Your task to perform on an android device: manage bookmarks in the chrome app Image 0: 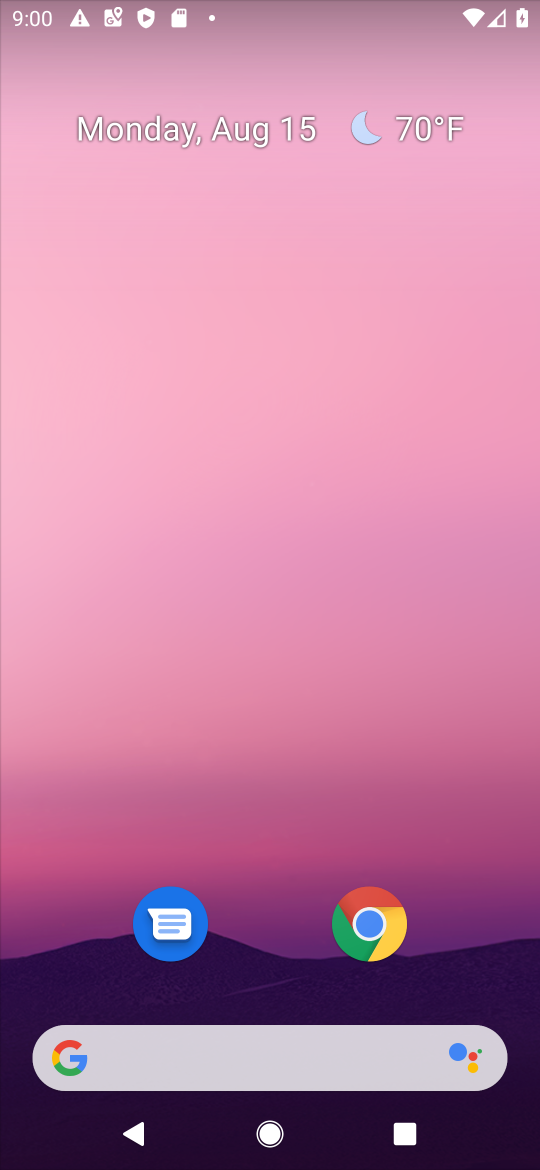
Step 0: click (371, 924)
Your task to perform on an android device: manage bookmarks in the chrome app Image 1: 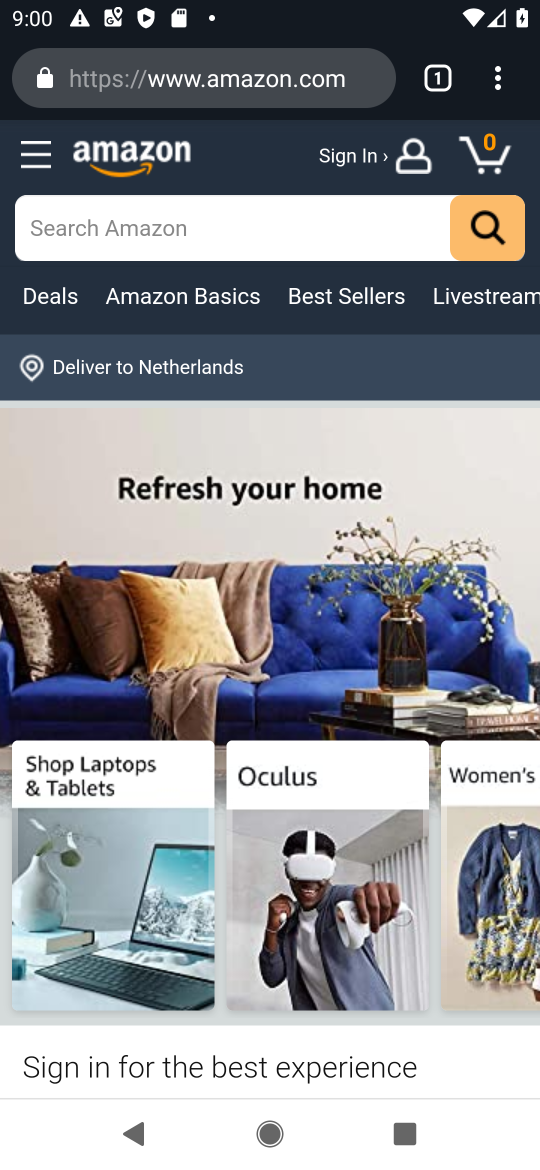
Step 1: click (494, 90)
Your task to perform on an android device: manage bookmarks in the chrome app Image 2: 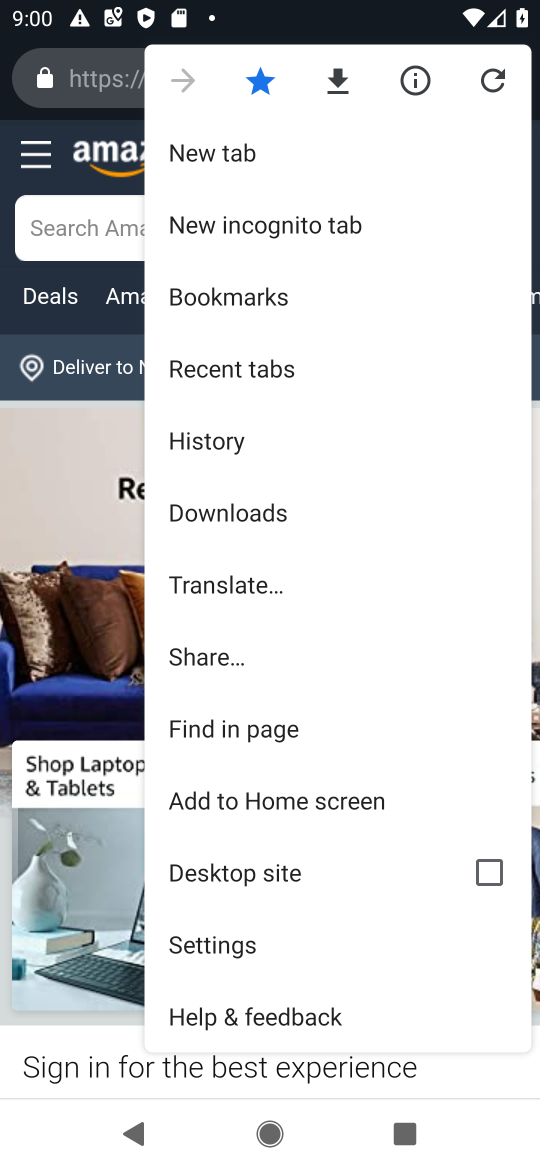
Step 2: click (214, 291)
Your task to perform on an android device: manage bookmarks in the chrome app Image 3: 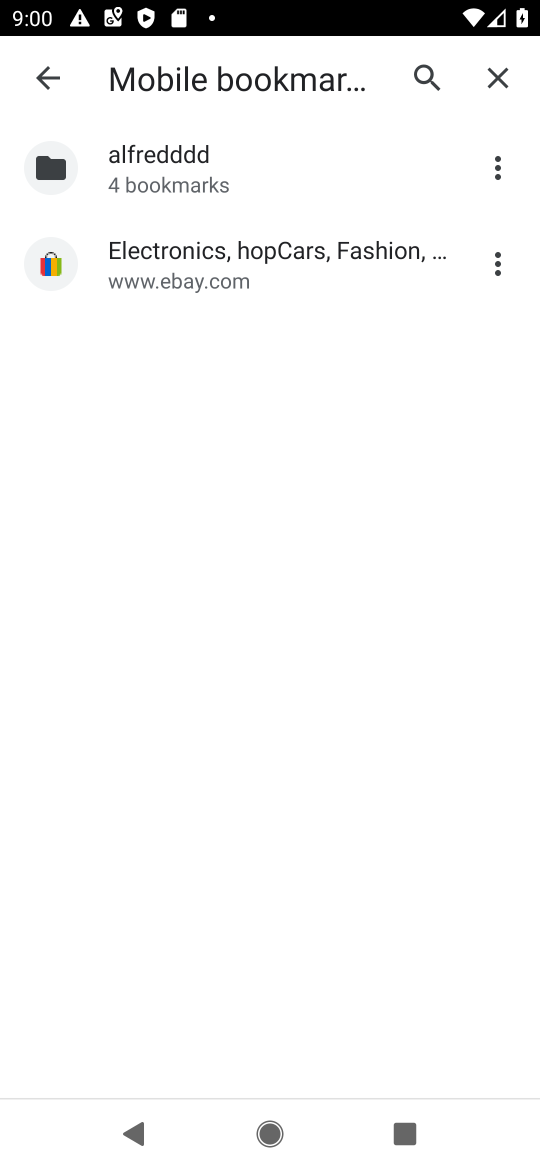
Step 3: click (183, 270)
Your task to perform on an android device: manage bookmarks in the chrome app Image 4: 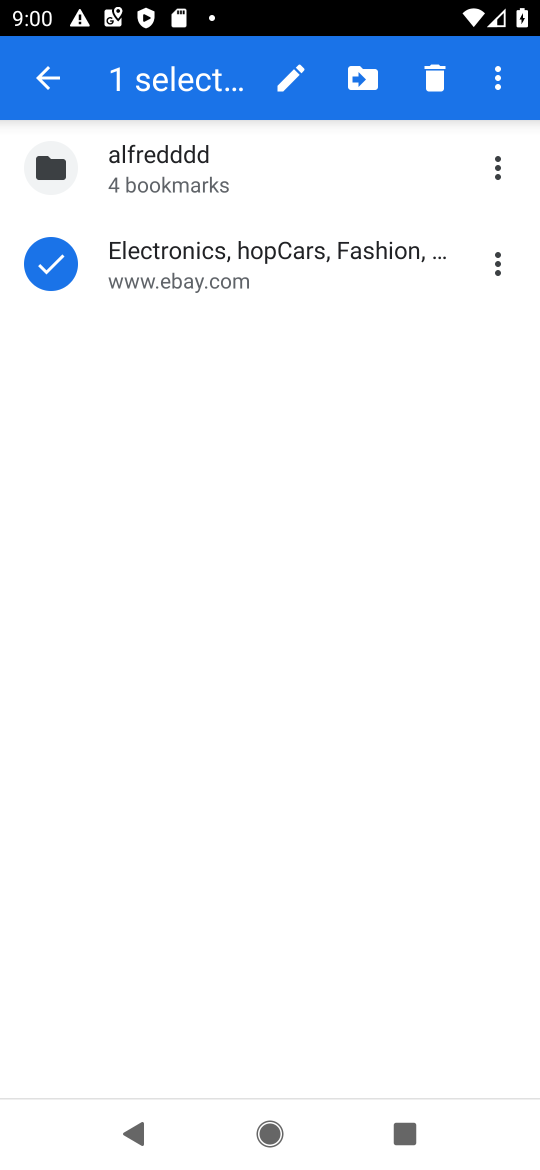
Step 4: click (358, 77)
Your task to perform on an android device: manage bookmarks in the chrome app Image 5: 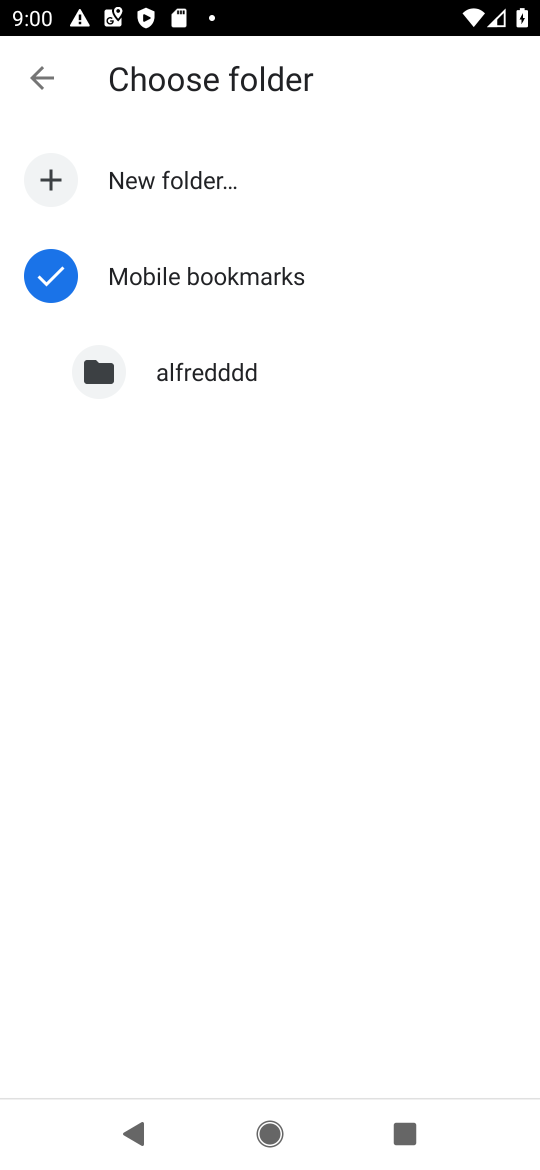
Step 5: click (45, 174)
Your task to perform on an android device: manage bookmarks in the chrome app Image 6: 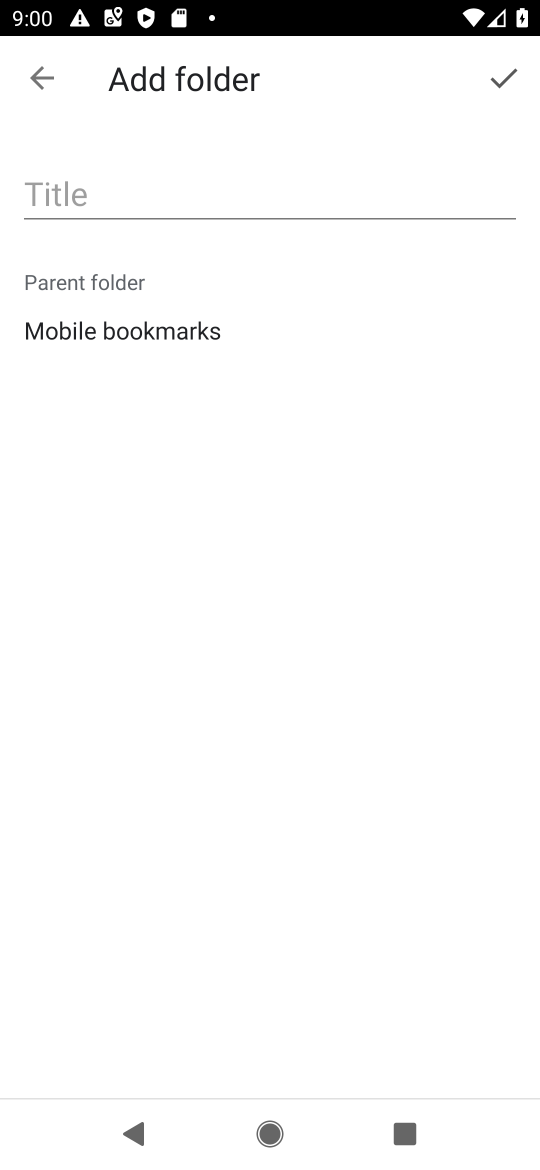
Step 6: click (69, 200)
Your task to perform on an android device: manage bookmarks in the chrome app Image 7: 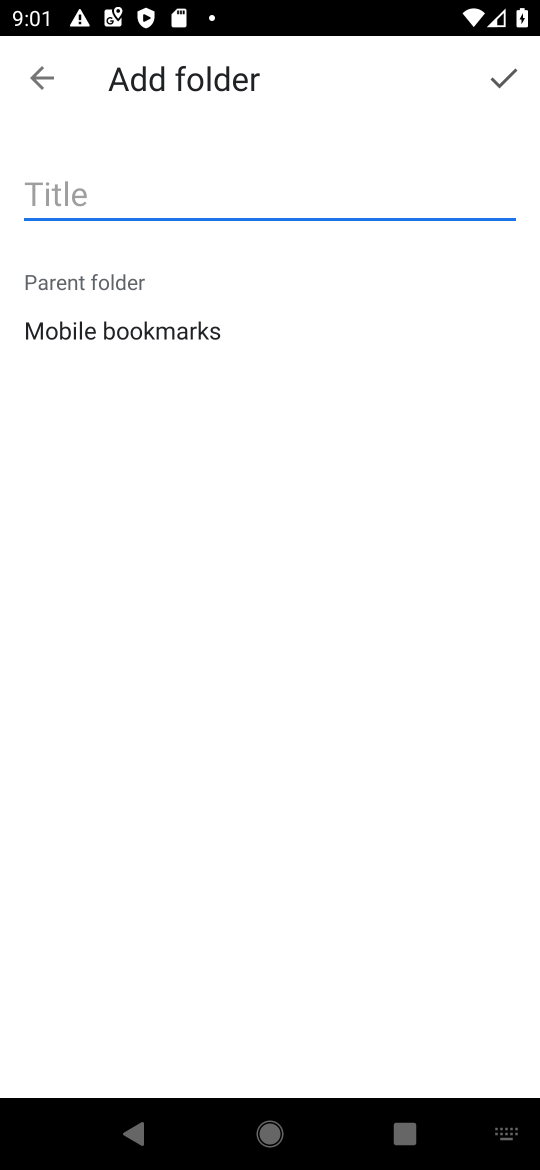
Step 7: type "tvf"
Your task to perform on an android device: manage bookmarks in the chrome app Image 8: 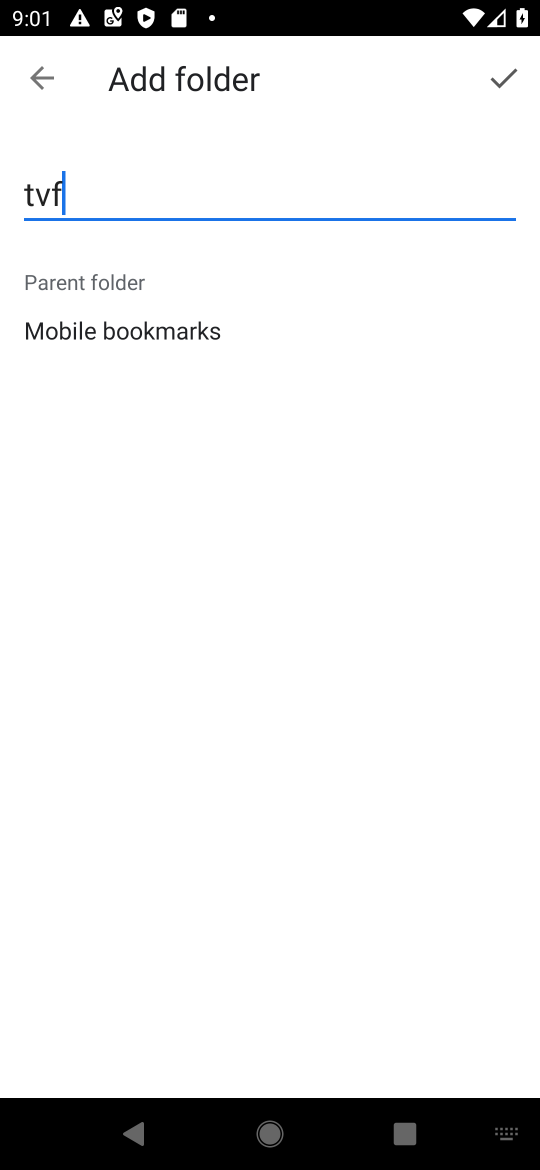
Step 8: click (500, 75)
Your task to perform on an android device: manage bookmarks in the chrome app Image 9: 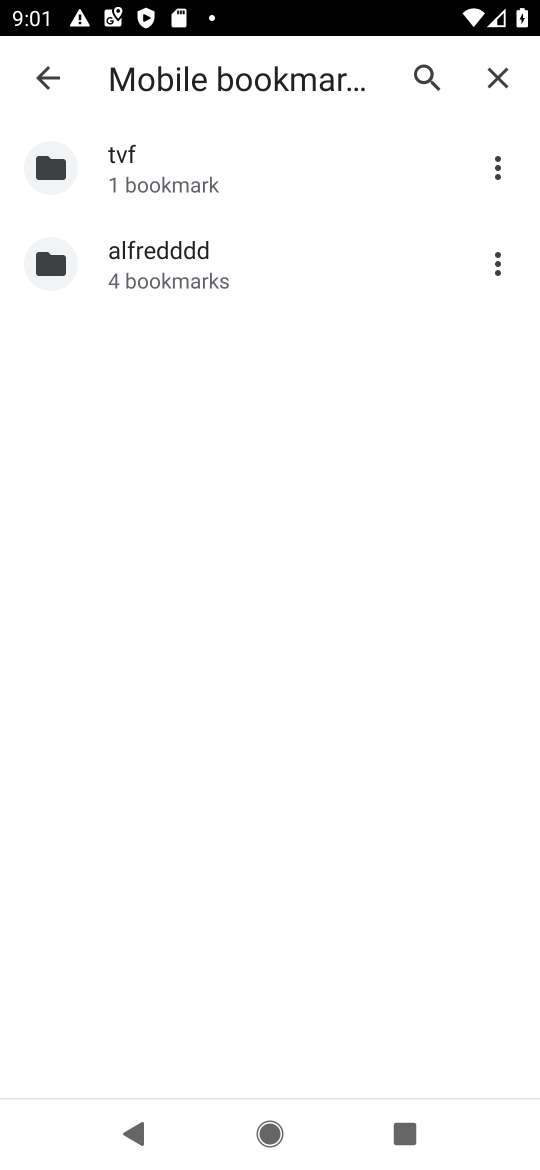
Step 9: task complete